Your task to perform on an android device: Do I have any events tomorrow? Image 0: 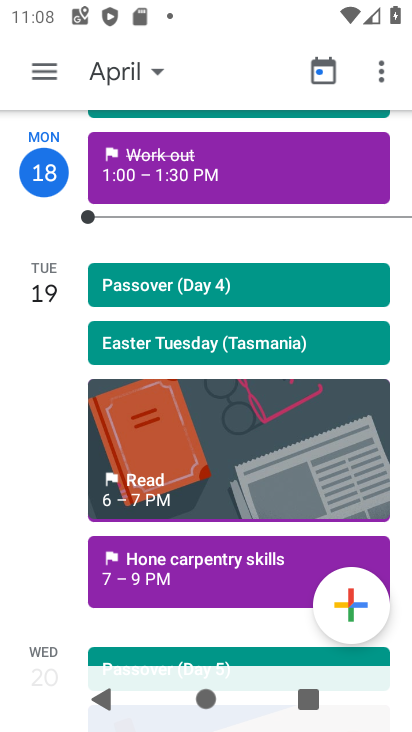
Step 0: click (54, 75)
Your task to perform on an android device: Do I have any events tomorrow? Image 1: 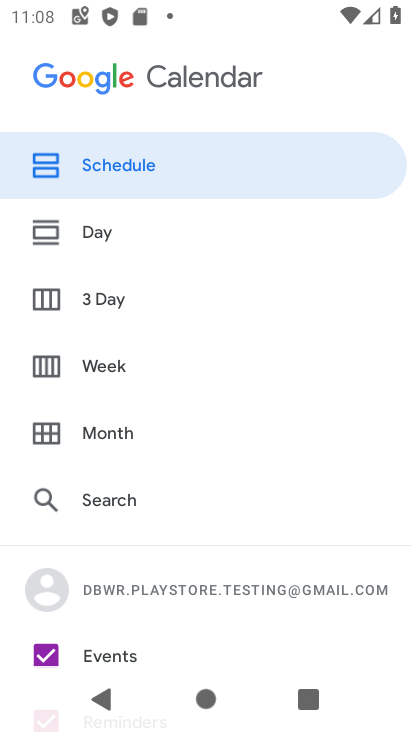
Step 1: click (82, 234)
Your task to perform on an android device: Do I have any events tomorrow? Image 2: 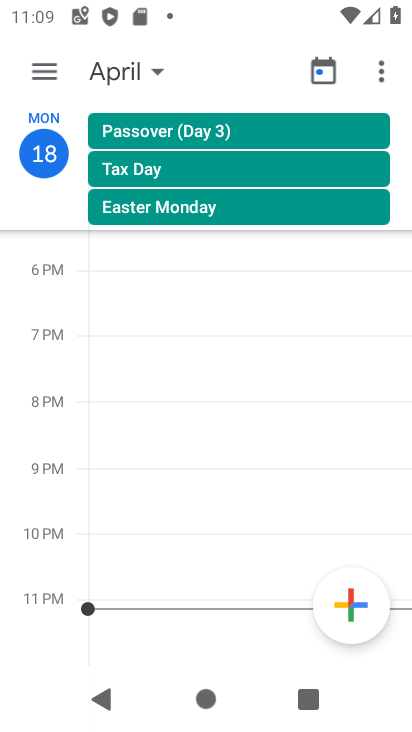
Step 2: drag from (288, 98) to (1, 130)
Your task to perform on an android device: Do I have any events tomorrow? Image 3: 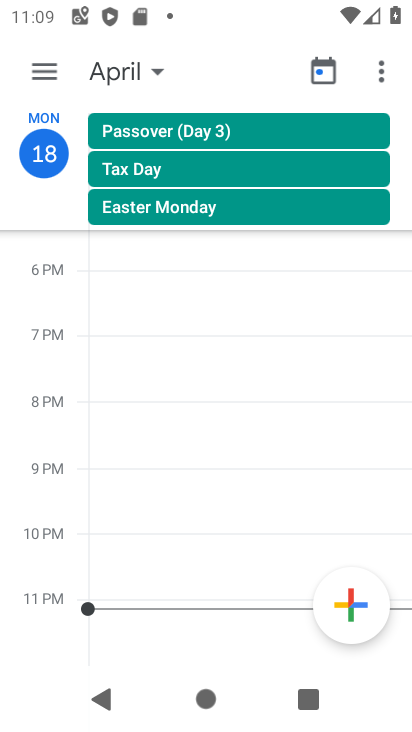
Step 3: drag from (52, 194) to (65, 48)
Your task to perform on an android device: Do I have any events tomorrow? Image 4: 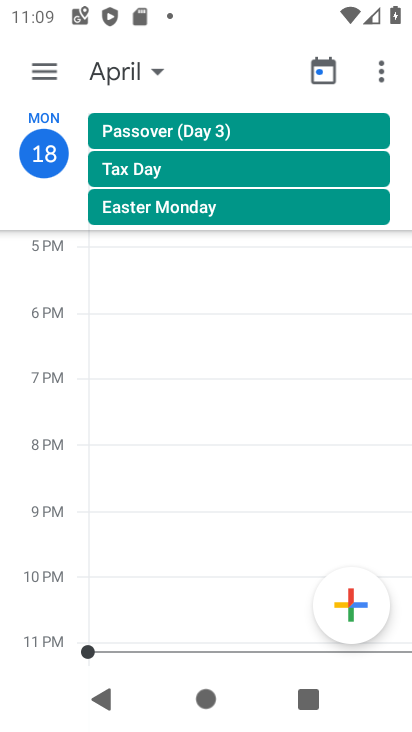
Step 4: drag from (39, 601) to (31, 46)
Your task to perform on an android device: Do I have any events tomorrow? Image 5: 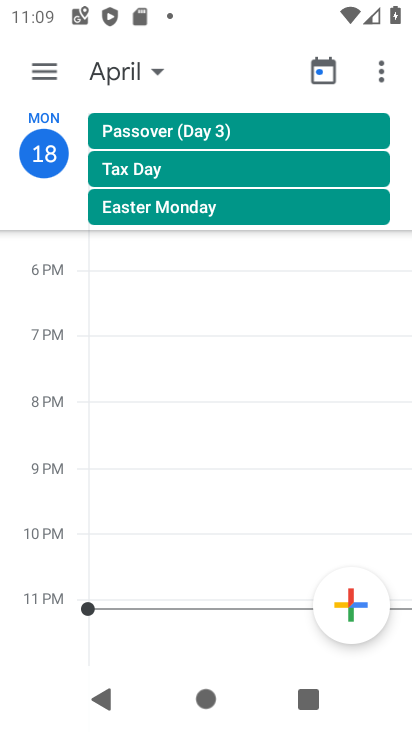
Step 5: drag from (56, 612) to (35, 218)
Your task to perform on an android device: Do I have any events tomorrow? Image 6: 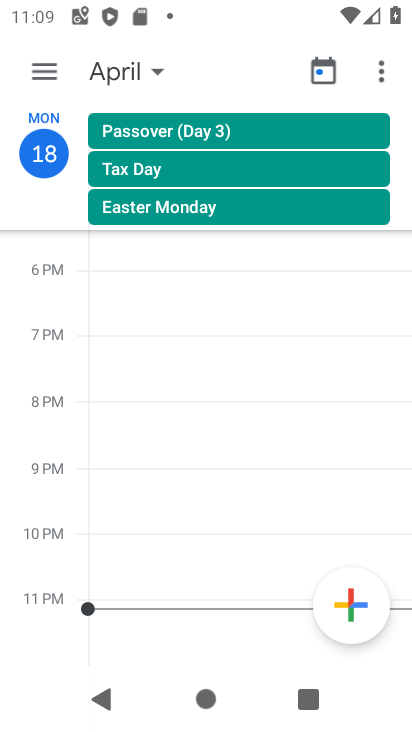
Step 6: click (43, 62)
Your task to perform on an android device: Do I have any events tomorrow? Image 7: 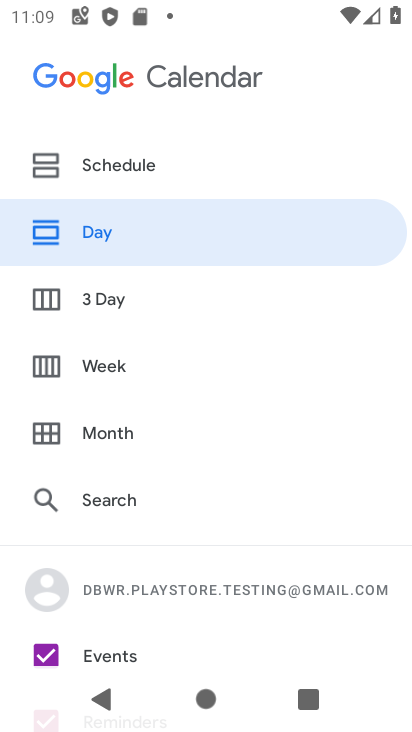
Step 7: click (141, 249)
Your task to perform on an android device: Do I have any events tomorrow? Image 8: 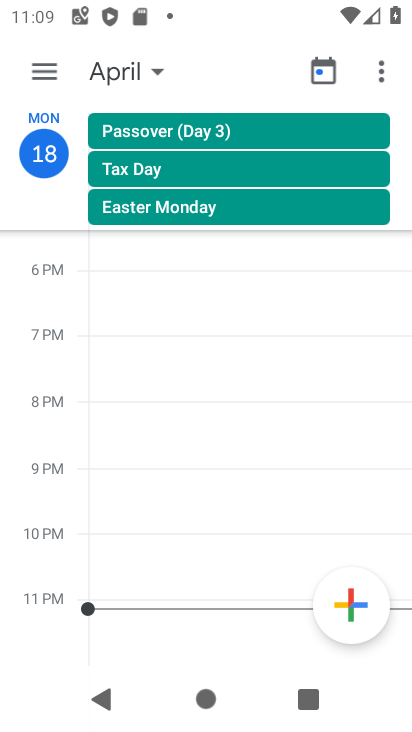
Step 8: click (117, 73)
Your task to perform on an android device: Do I have any events tomorrow? Image 9: 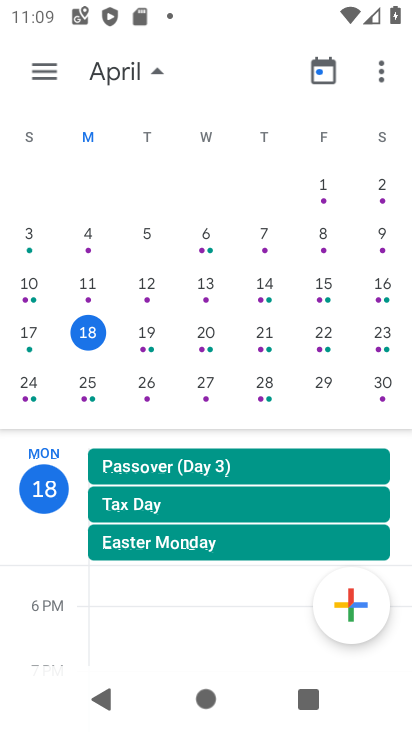
Step 9: click (135, 333)
Your task to perform on an android device: Do I have any events tomorrow? Image 10: 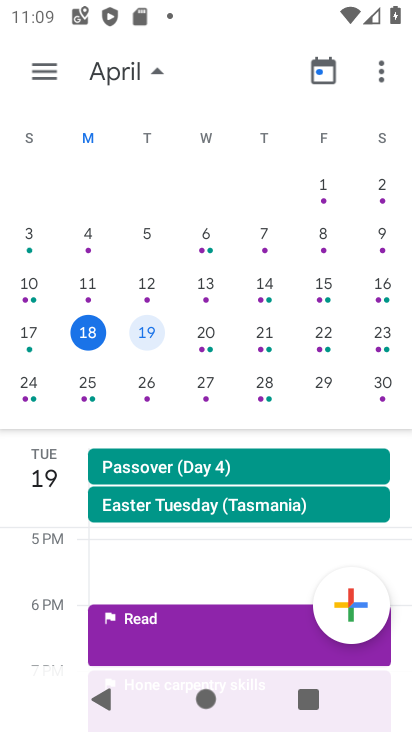
Step 10: click (88, 521)
Your task to perform on an android device: Do I have any events tomorrow? Image 11: 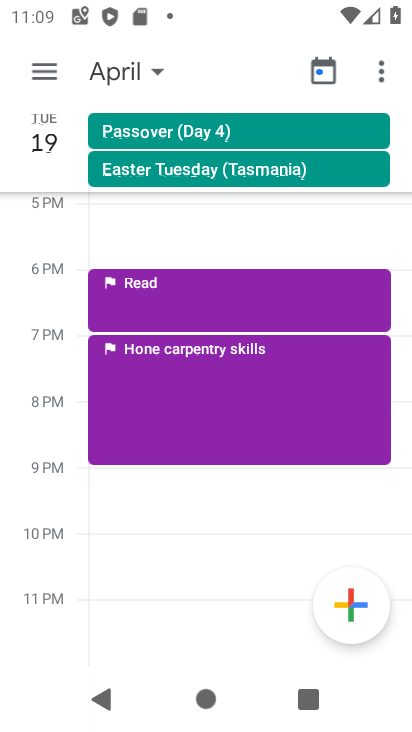
Step 11: task complete